Your task to perform on an android device: delete browsing data in the chrome app Image 0: 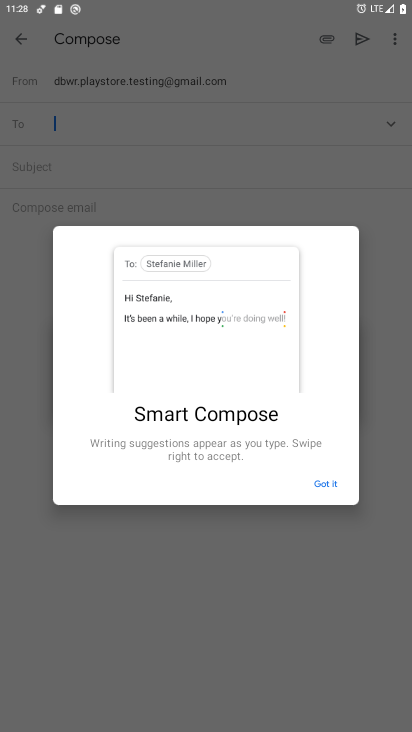
Step 0: press home button
Your task to perform on an android device: delete browsing data in the chrome app Image 1: 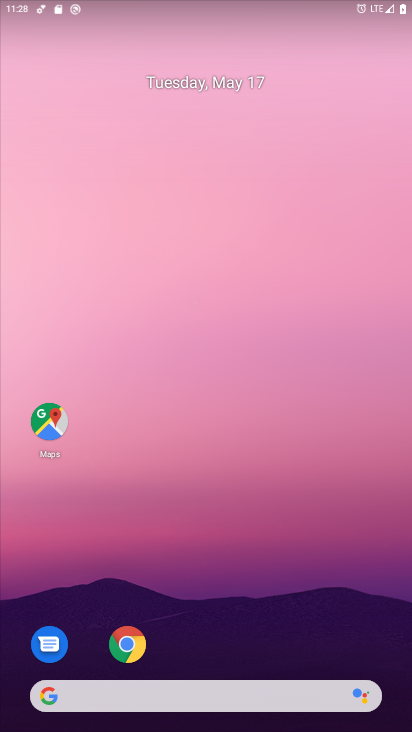
Step 1: click (126, 641)
Your task to perform on an android device: delete browsing data in the chrome app Image 2: 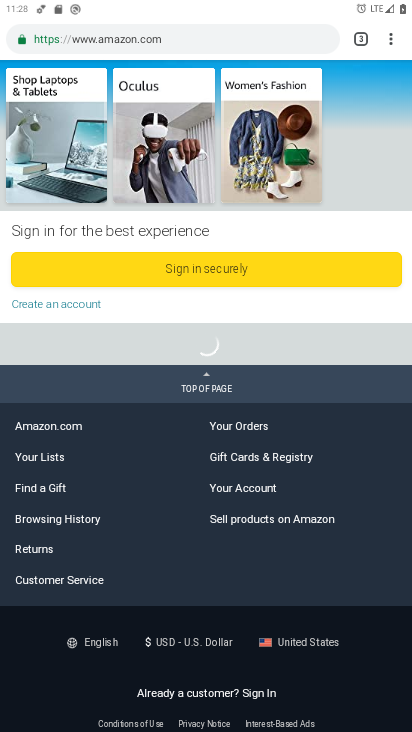
Step 2: click (390, 37)
Your task to perform on an android device: delete browsing data in the chrome app Image 3: 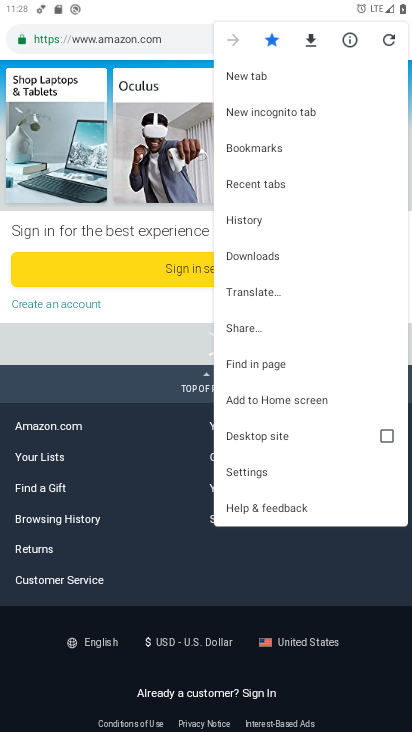
Step 3: click (273, 216)
Your task to perform on an android device: delete browsing data in the chrome app Image 4: 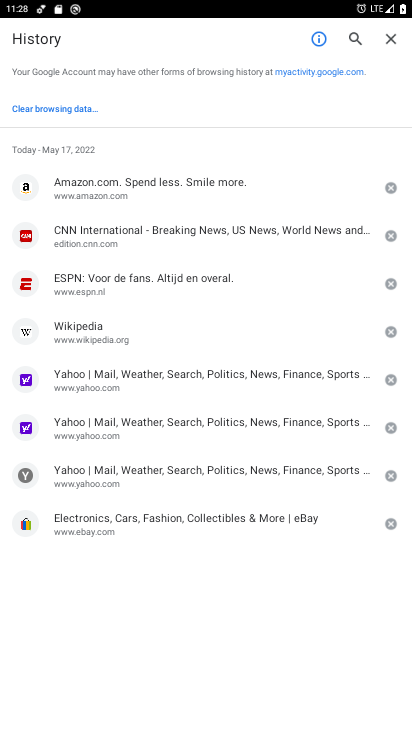
Step 4: click (45, 110)
Your task to perform on an android device: delete browsing data in the chrome app Image 5: 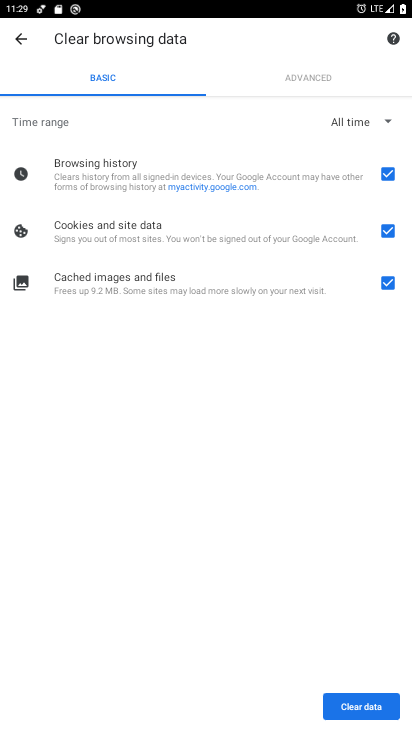
Step 5: click (359, 707)
Your task to perform on an android device: delete browsing data in the chrome app Image 6: 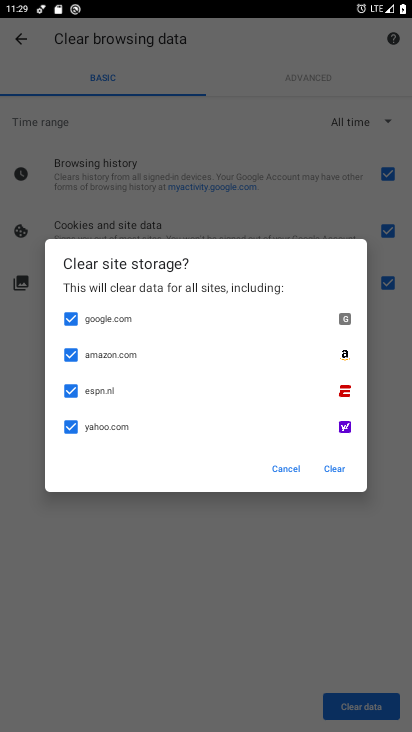
Step 6: click (339, 465)
Your task to perform on an android device: delete browsing data in the chrome app Image 7: 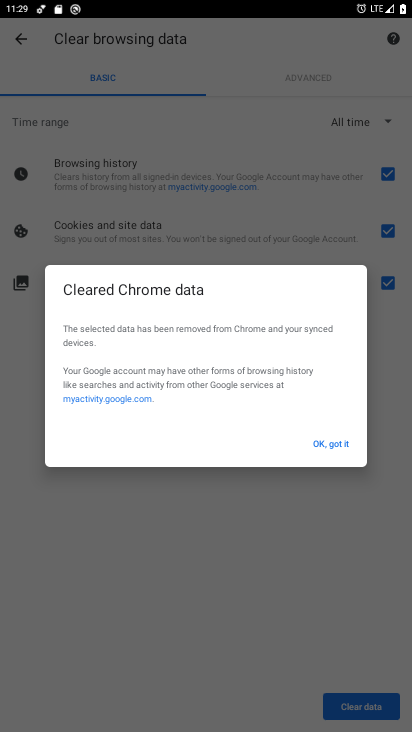
Step 7: click (325, 450)
Your task to perform on an android device: delete browsing data in the chrome app Image 8: 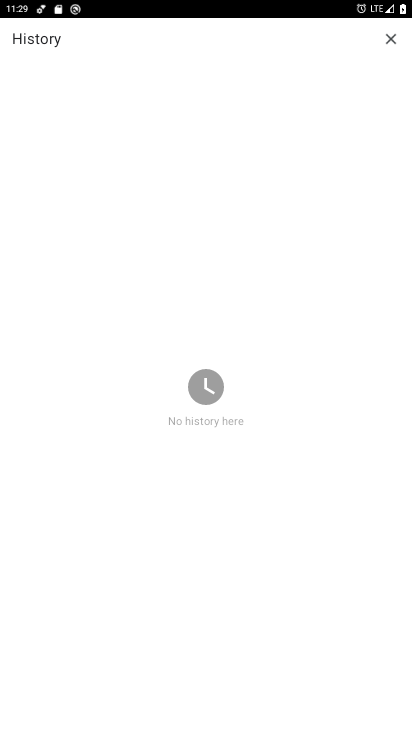
Step 8: task complete